Your task to perform on an android device: Do I have any events today? Image 0: 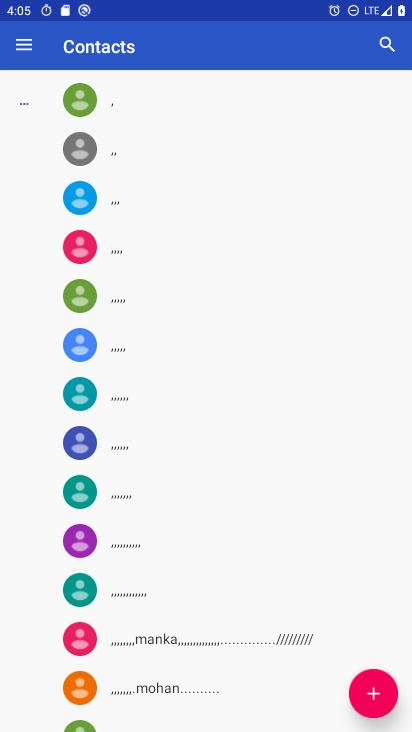
Step 0: press home button
Your task to perform on an android device: Do I have any events today? Image 1: 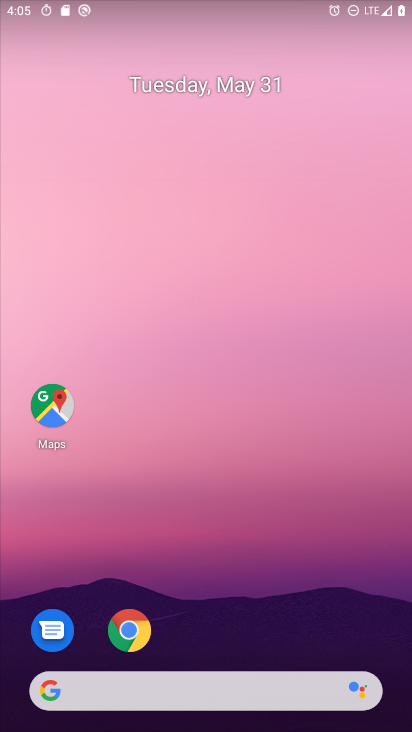
Step 1: drag from (263, 721) to (285, 33)
Your task to perform on an android device: Do I have any events today? Image 2: 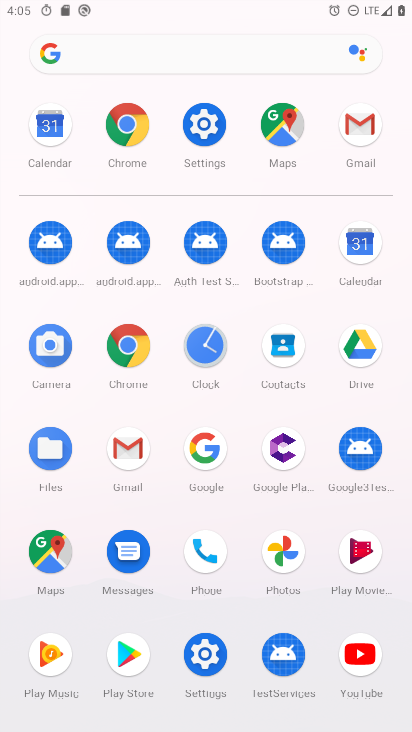
Step 2: click (365, 243)
Your task to perform on an android device: Do I have any events today? Image 3: 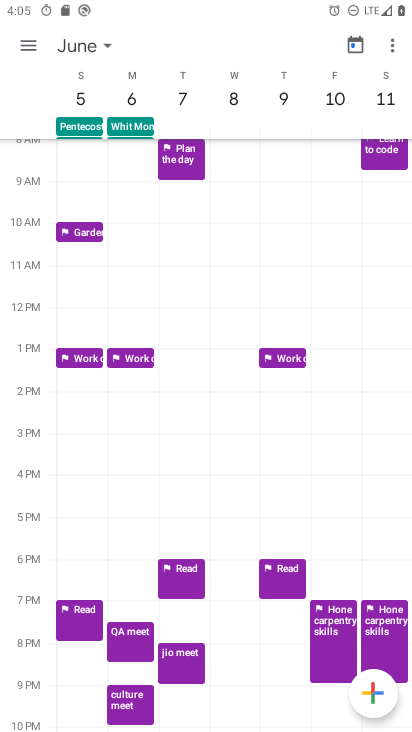
Step 3: click (115, 40)
Your task to perform on an android device: Do I have any events today? Image 4: 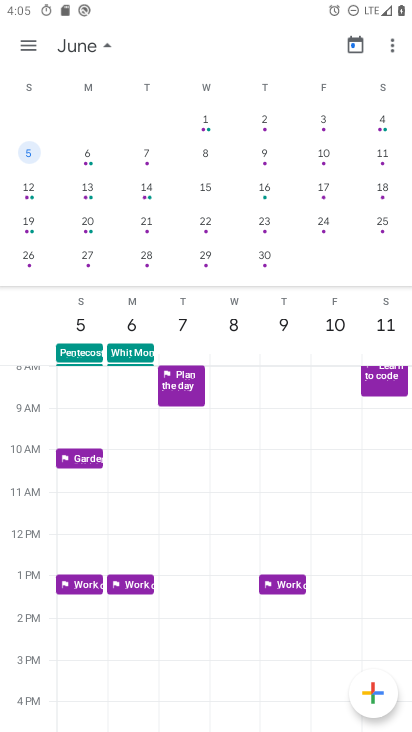
Step 4: drag from (137, 236) to (411, 212)
Your task to perform on an android device: Do I have any events today? Image 5: 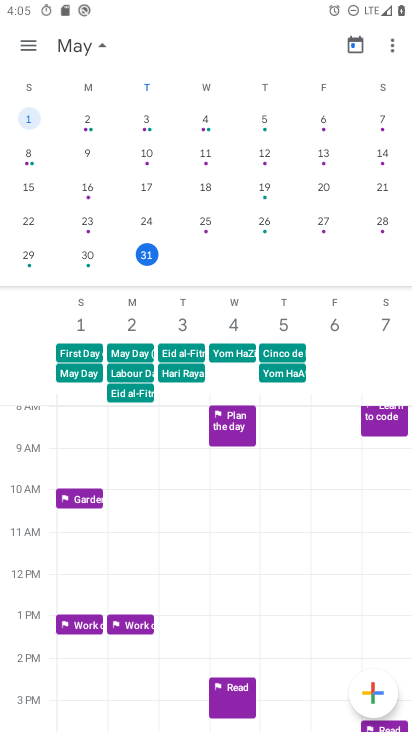
Step 5: click (155, 259)
Your task to perform on an android device: Do I have any events today? Image 6: 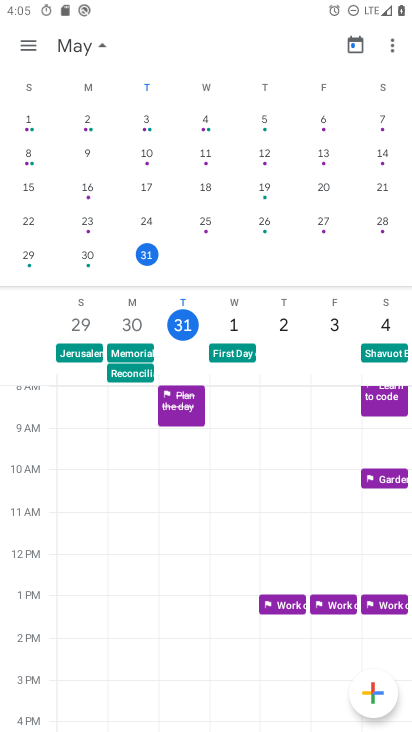
Step 6: task complete